Your task to perform on an android device: Open the Play Movies app and select the watchlist tab. Image 0: 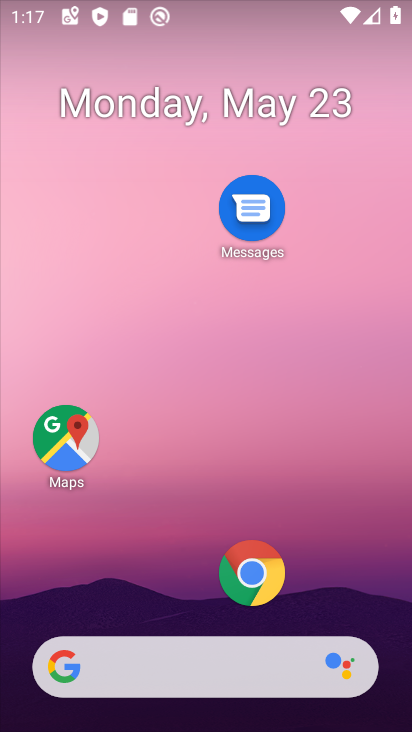
Step 0: drag from (145, 580) to (170, 152)
Your task to perform on an android device: Open the Play Movies app and select the watchlist tab. Image 1: 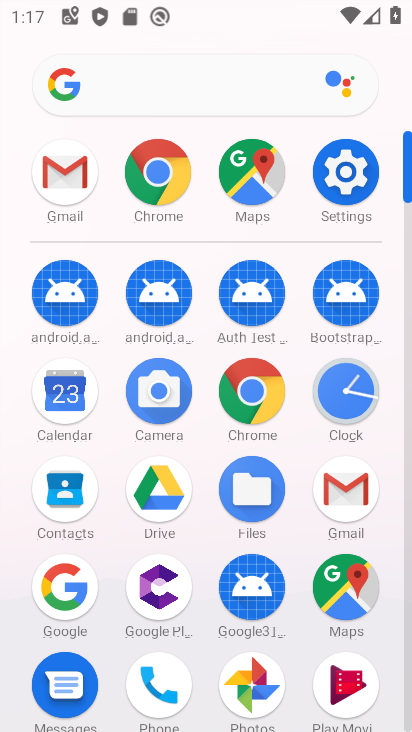
Step 1: click (355, 678)
Your task to perform on an android device: Open the Play Movies app and select the watchlist tab. Image 2: 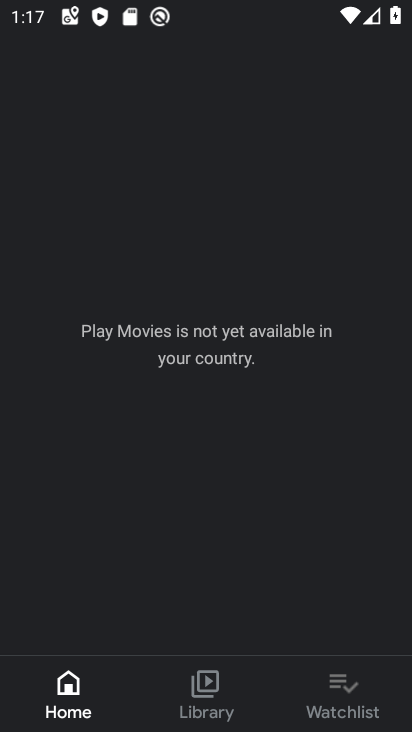
Step 2: click (325, 678)
Your task to perform on an android device: Open the Play Movies app and select the watchlist tab. Image 3: 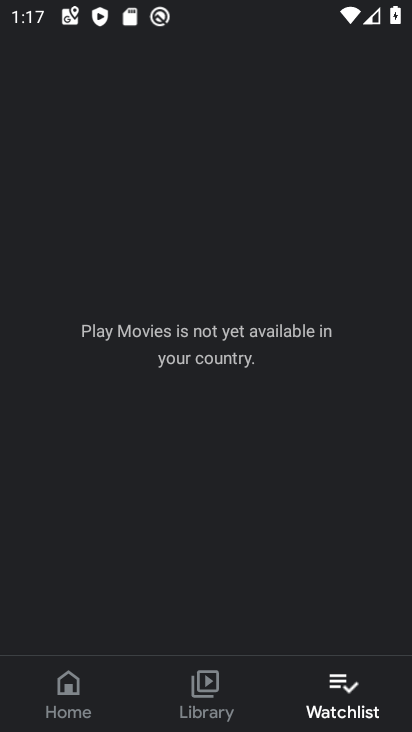
Step 3: task complete